Your task to perform on an android device: change the clock display to show seconds Image 0: 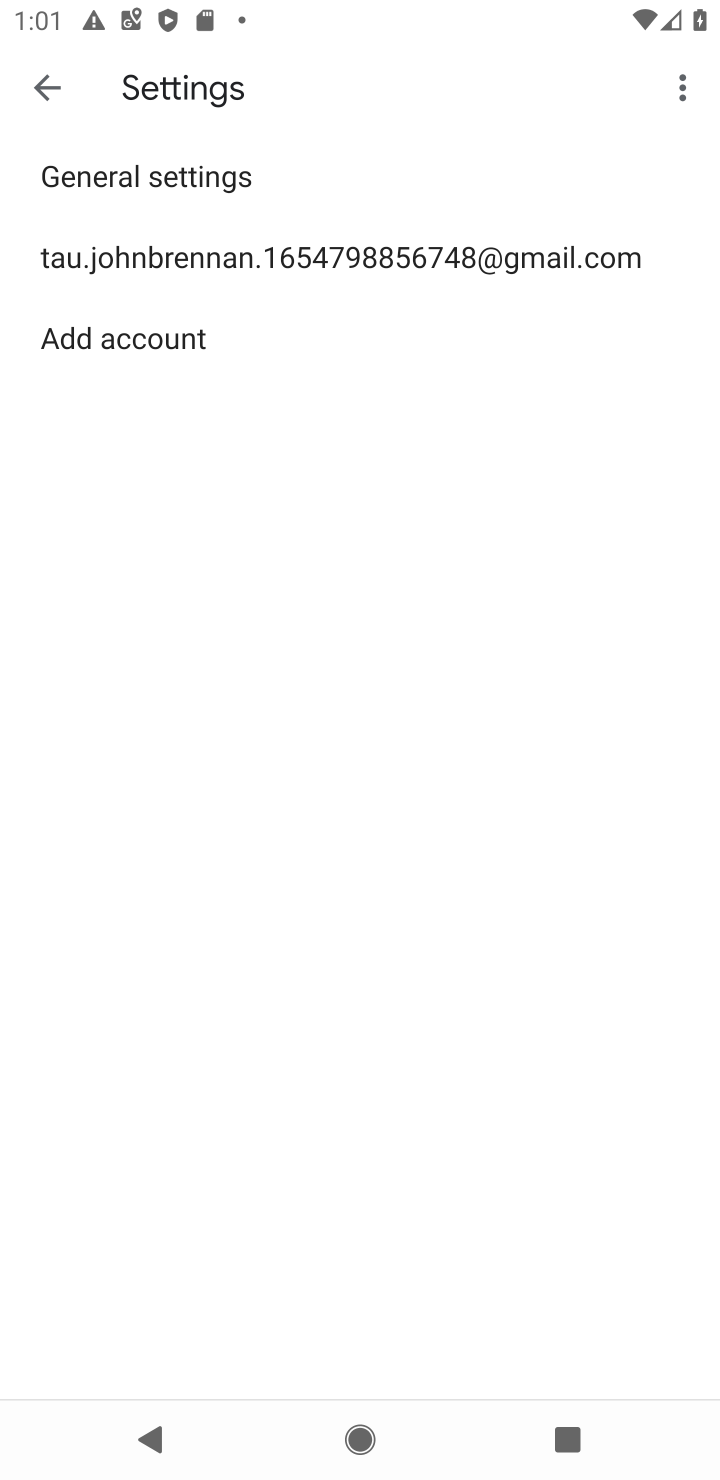
Step 0: press home button
Your task to perform on an android device: change the clock display to show seconds Image 1: 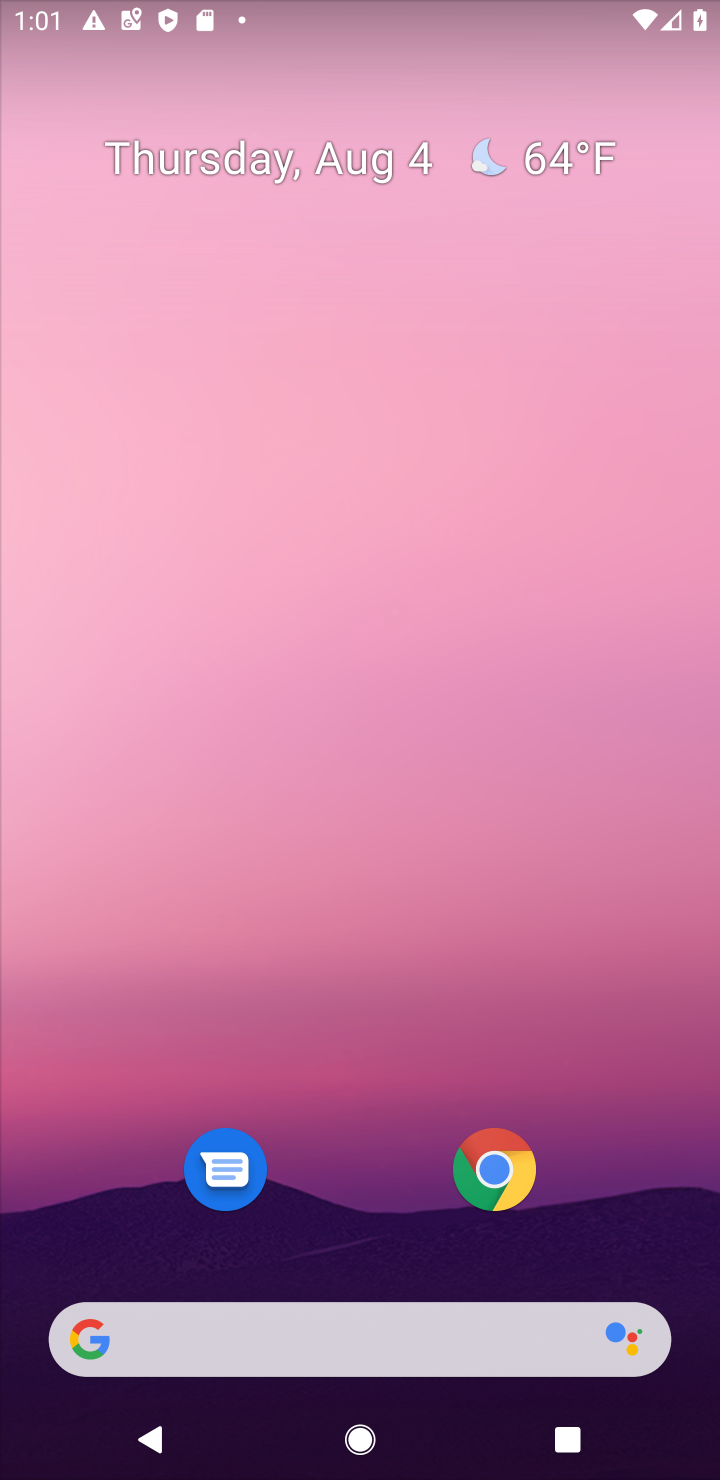
Step 1: drag from (307, 769) to (391, 19)
Your task to perform on an android device: change the clock display to show seconds Image 2: 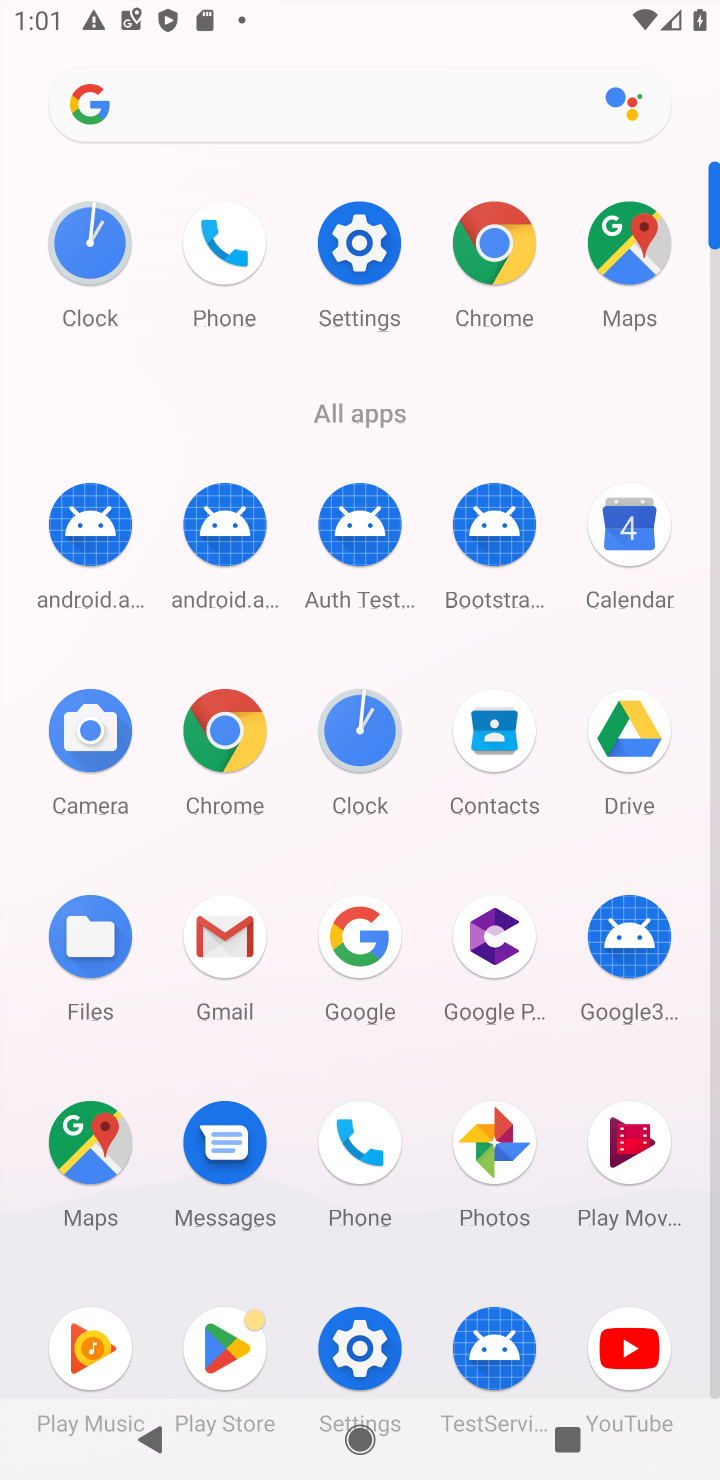
Step 2: click (346, 756)
Your task to perform on an android device: change the clock display to show seconds Image 3: 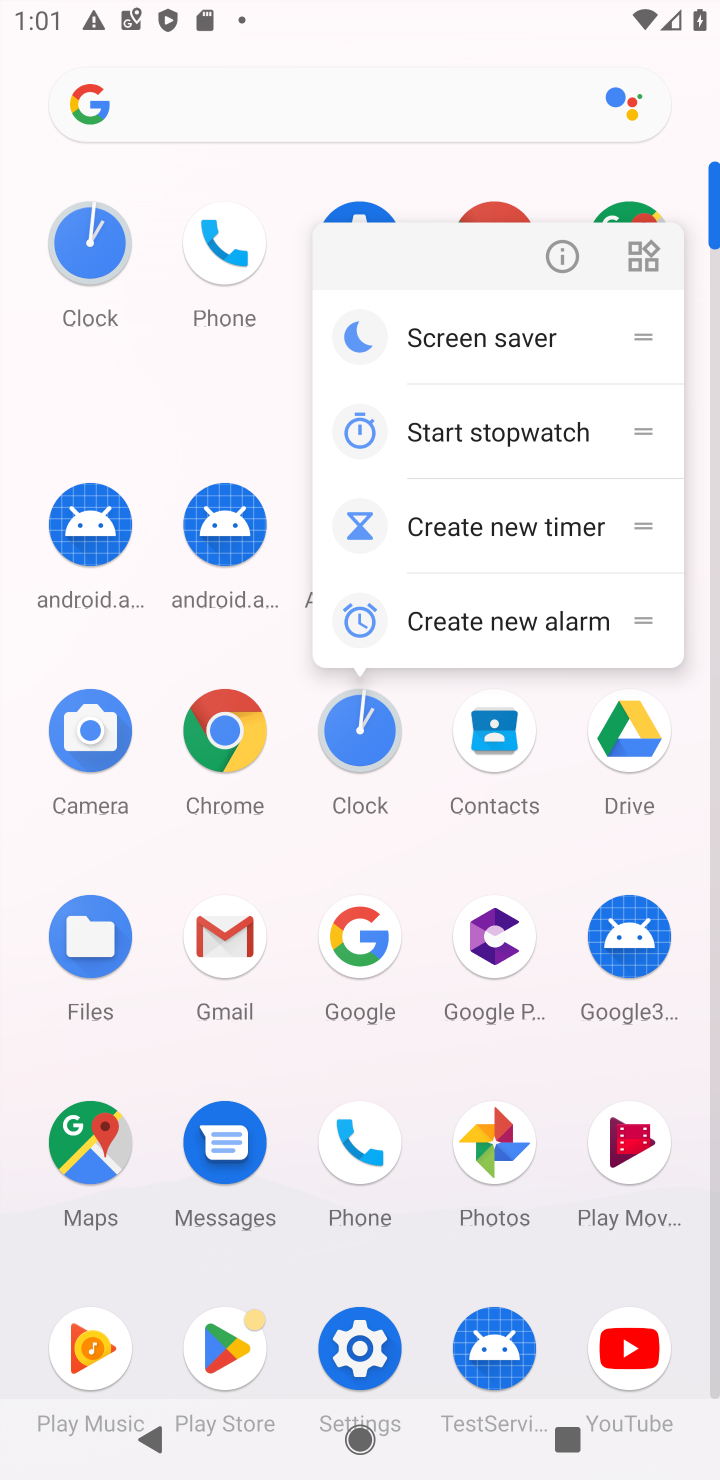
Step 3: click (356, 739)
Your task to perform on an android device: change the clock display to show seconds Image 4: 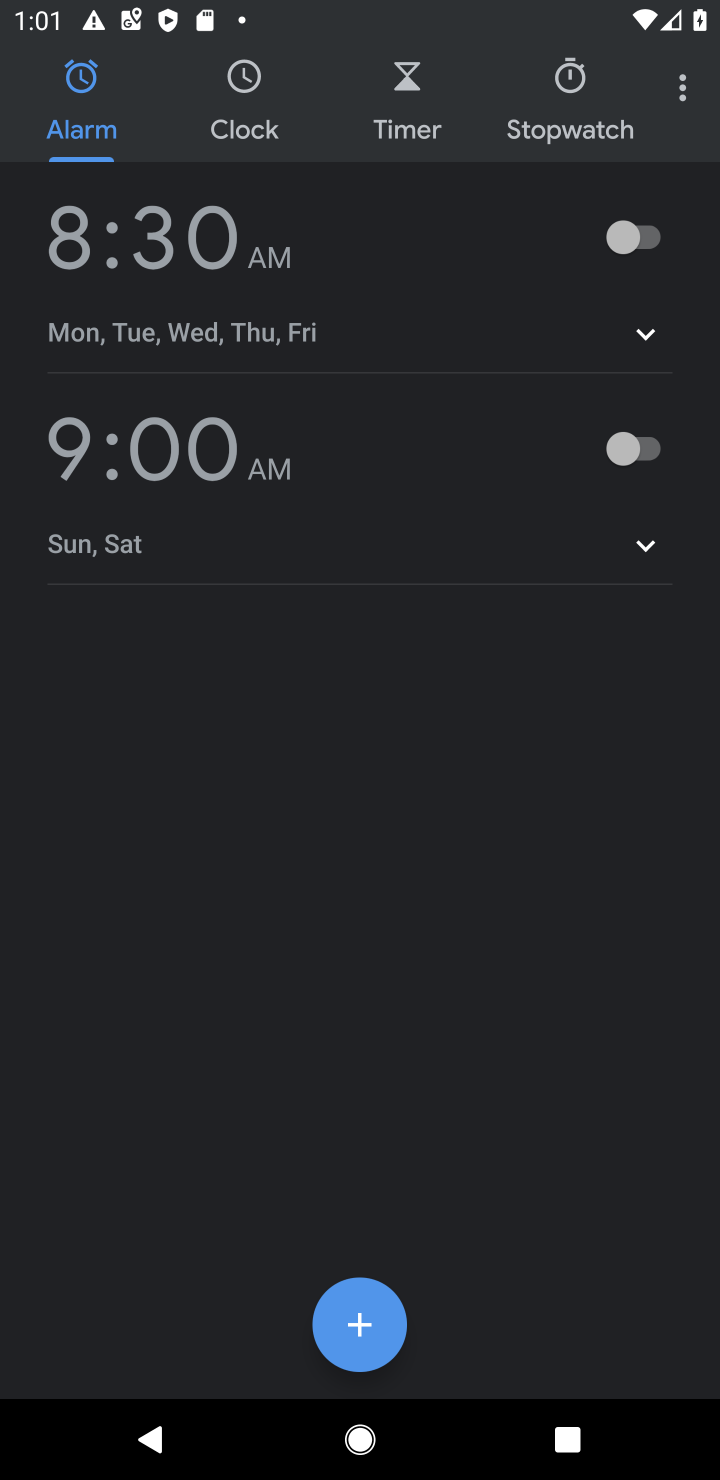
Step 4: click (680, 58)
Your task to perform on an android device: change the clock display to show seconds Image 5: 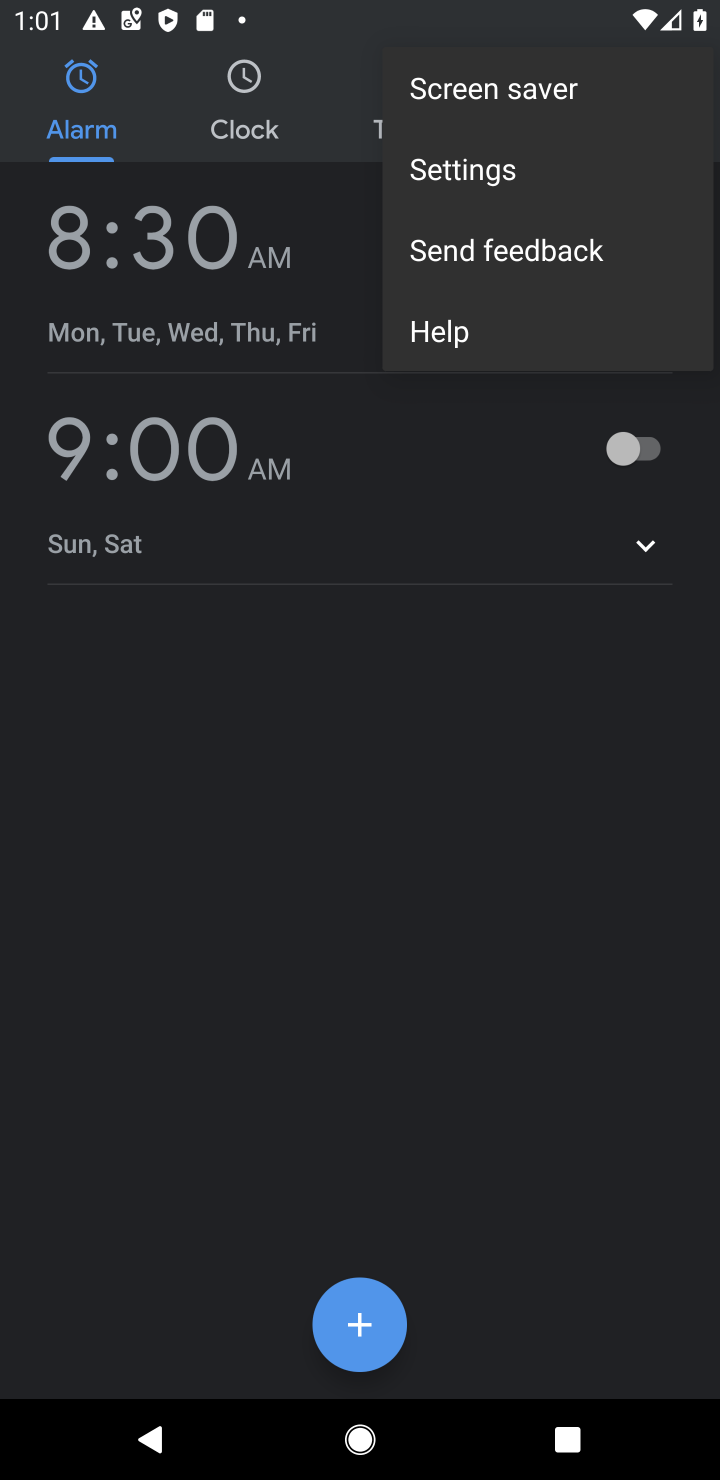
Step 5: click (474, 174)
Your task to perform on an android device: change the clock display to show seconds Image 6: 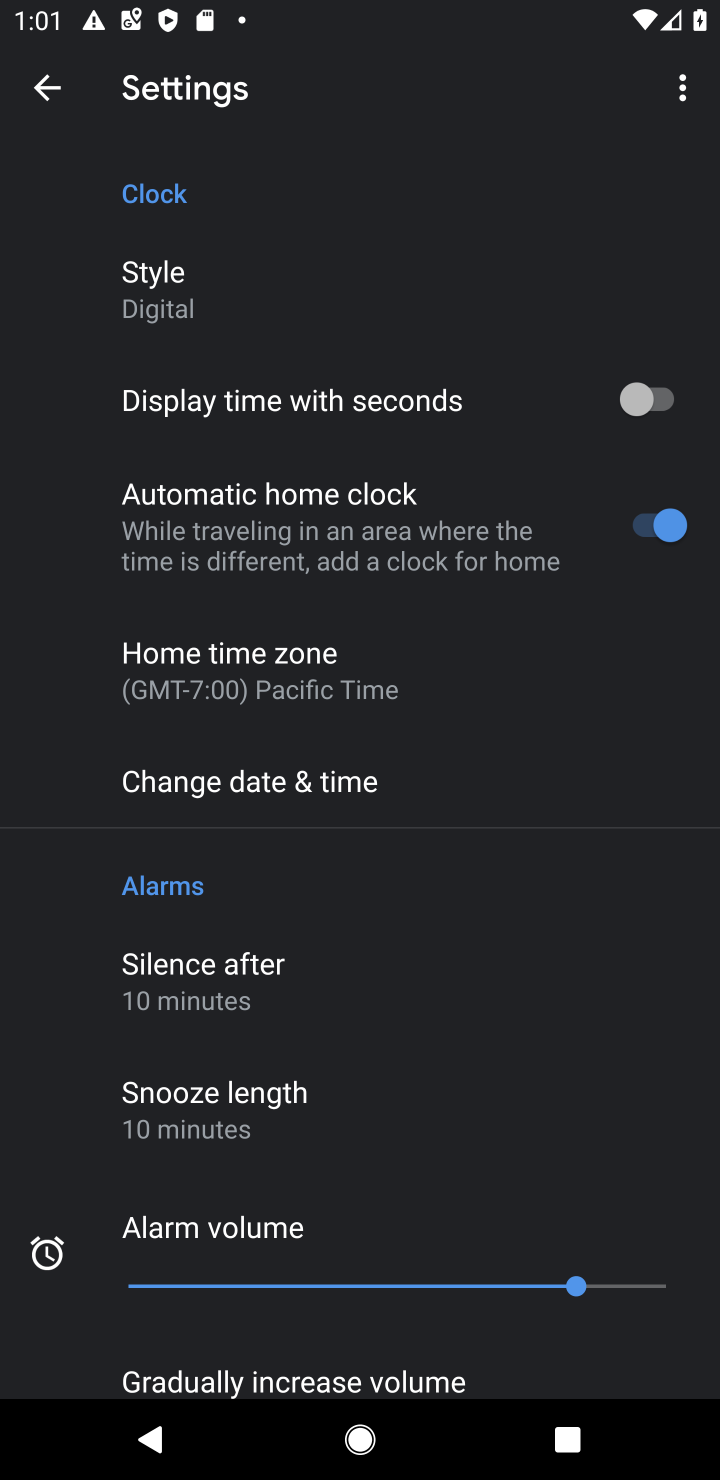
Step 6: click (165, 279)
Your task to perform on an android device: change the clock display to show seconds Image 7: 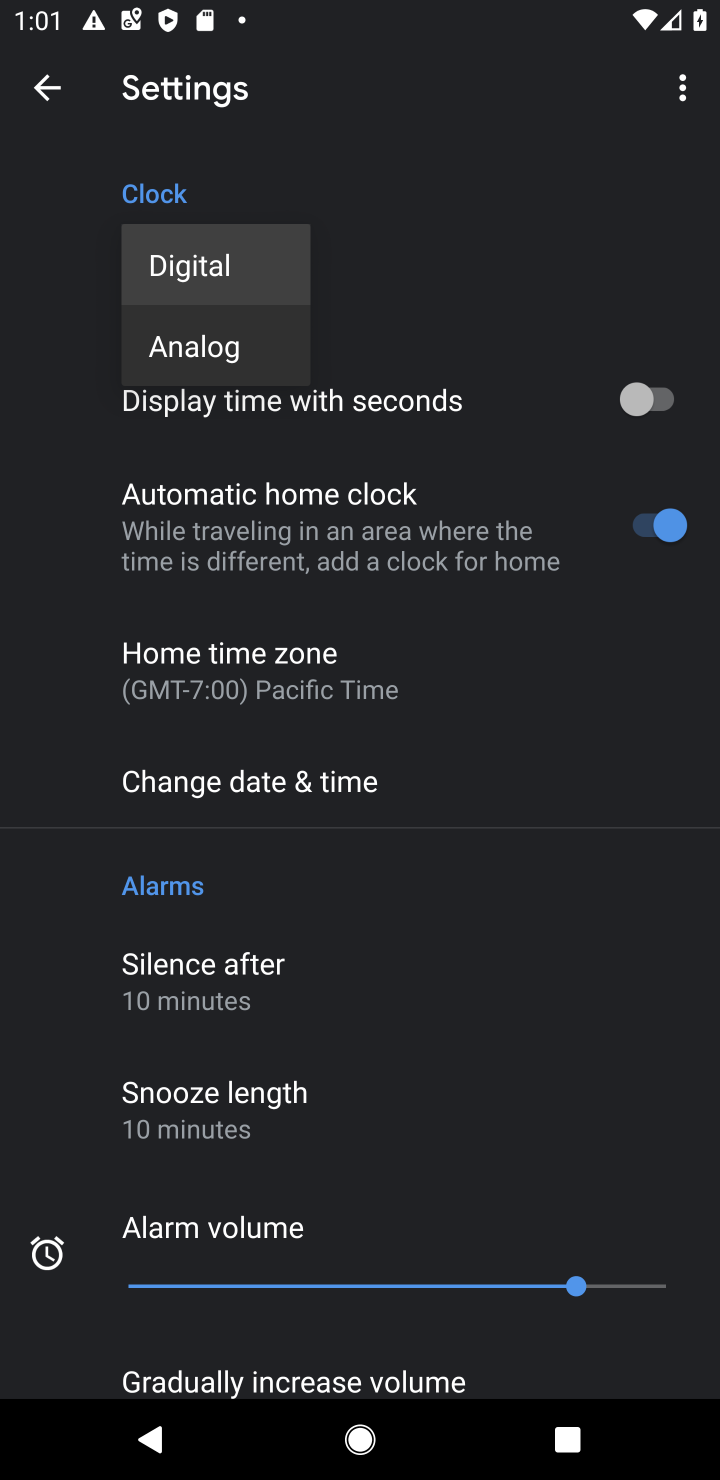
Step 7: click (251, 340)
Your task to perform on an android device: change the clock display to show seconds Image 8: 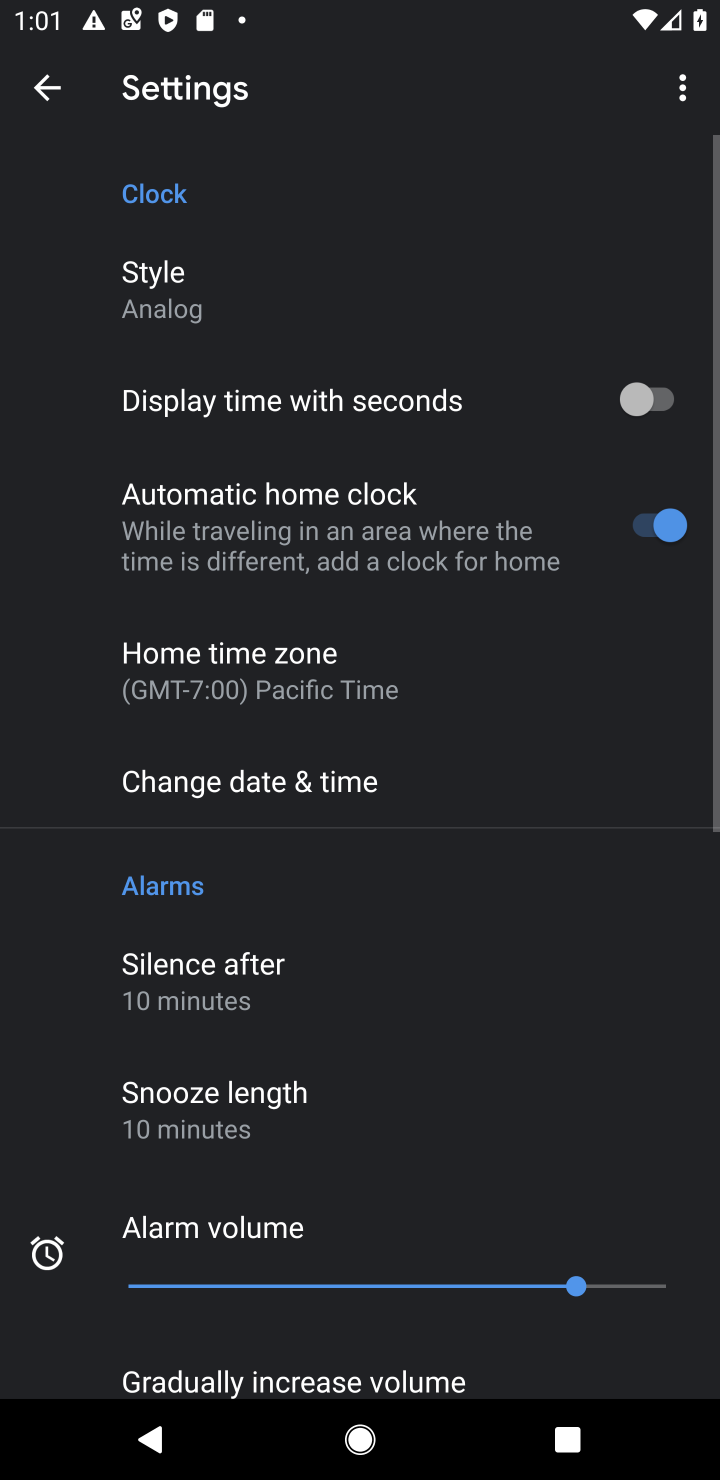
Step 8: click (676, 395)
Your task to perform on an android device: change the clock display to show seconds Image 9: 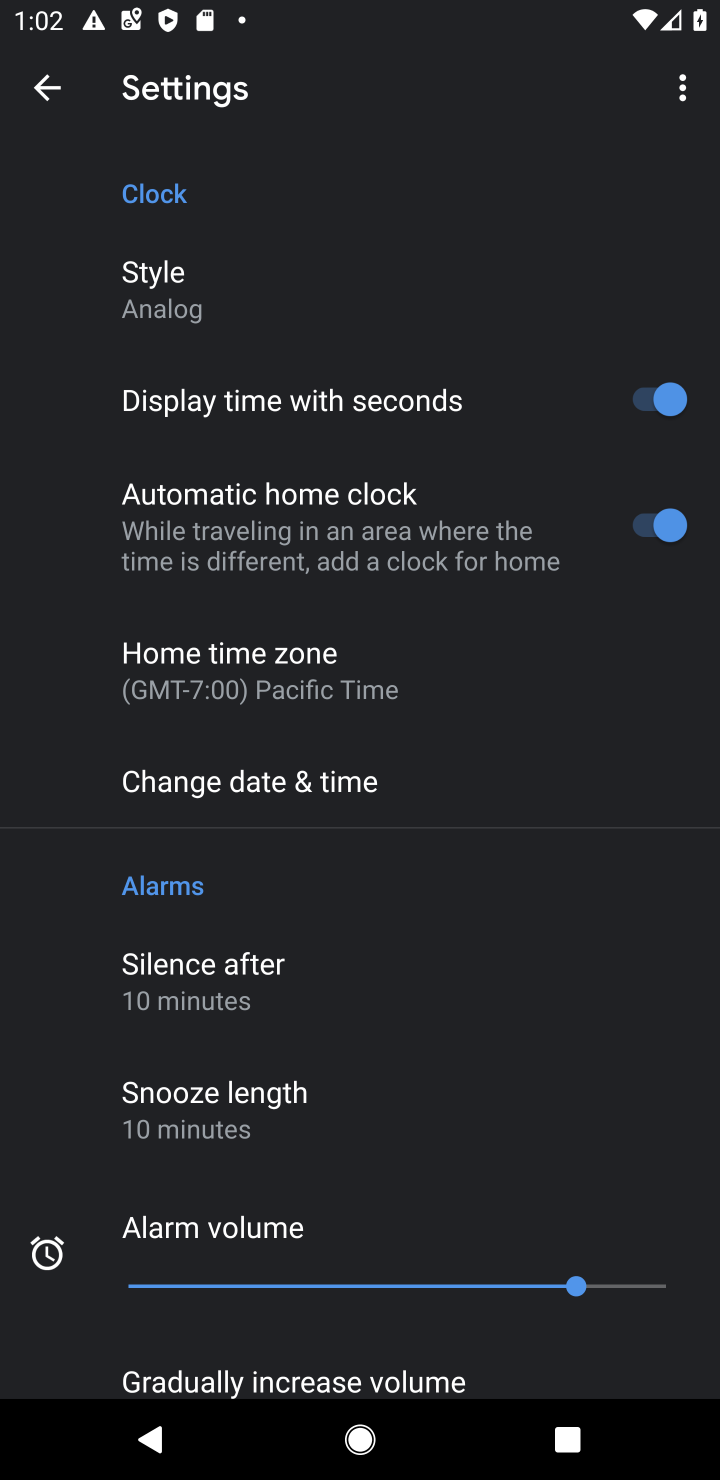
Step 9: task complete